Your task to perform on an android device: show emergency info Image 0: 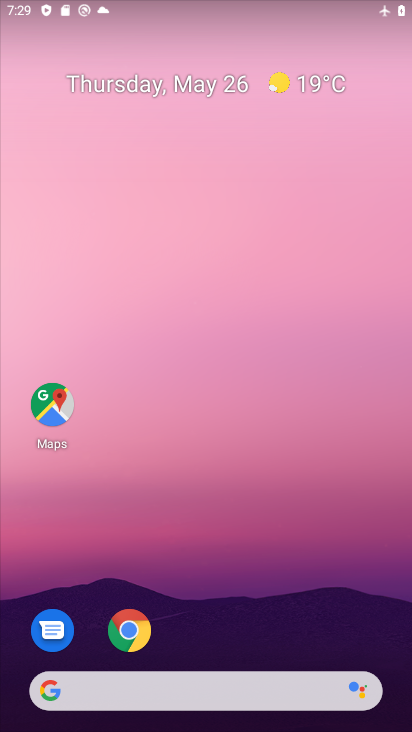
Step 0: drag from (285, 620) to (209, 162)
Your task to perform on an android device: show emergency info Image 1: 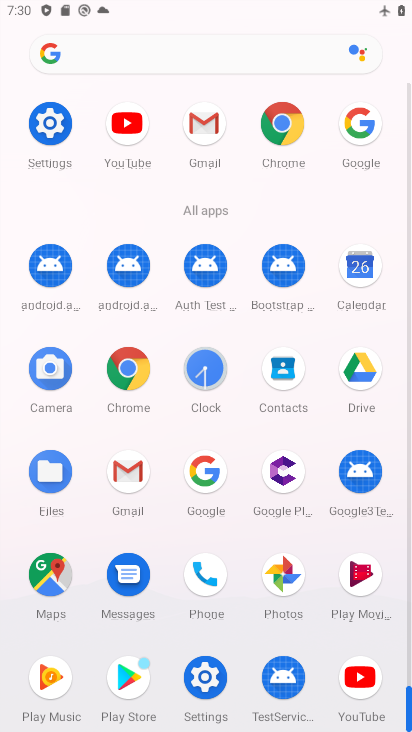
Step 1: click (203, 676)
Your task to perform on an android device: show emergency info Image 2: 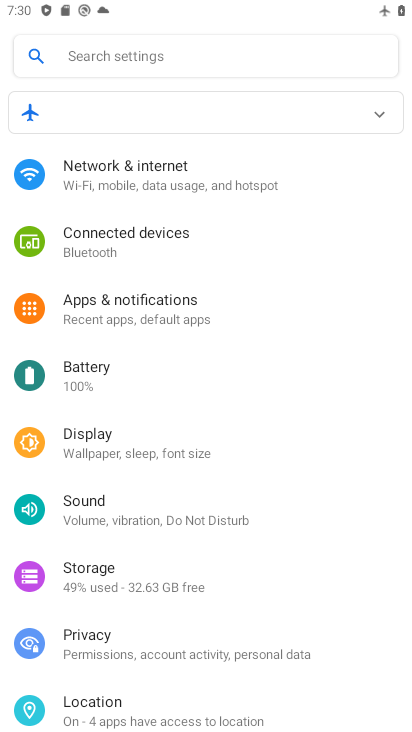
Step 2: drag from (122, 479) to (163, 384)
Your task to perform on an android device: show emergency info Image 3: 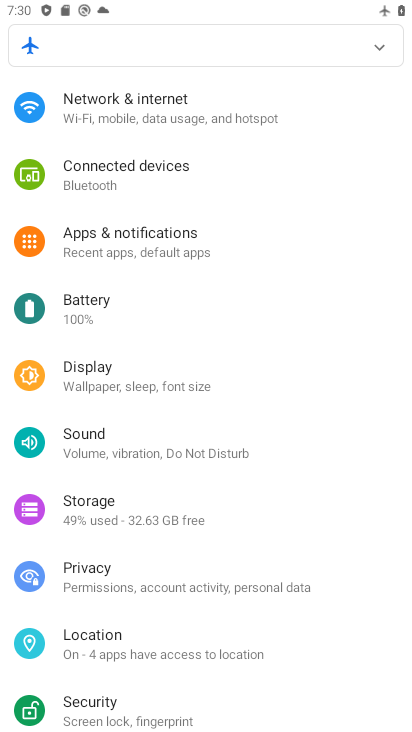
Step 3: drag from (125, 486) to (183, 399)
Your task to perform on an android device: show emergency info Image 4: 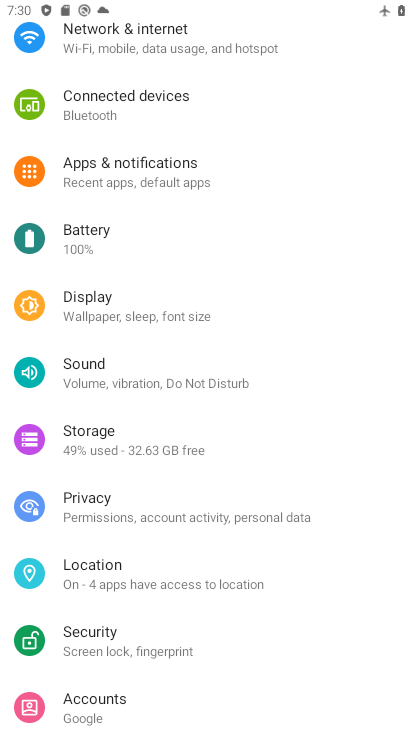
Step 4: drag from (109, 480) to (151, 389)
Your task to perform on an android device: show emergency info Image 5: 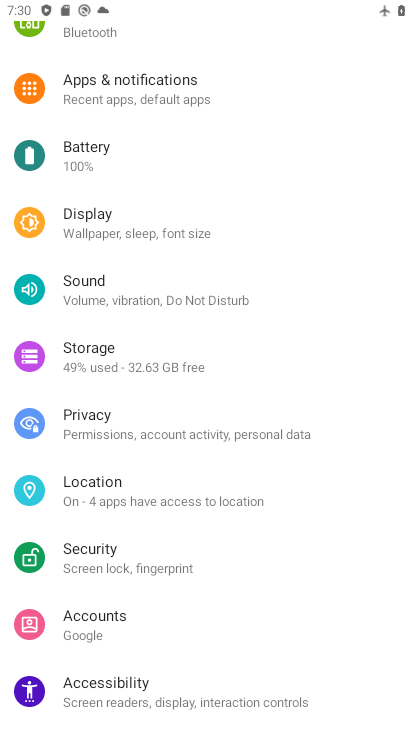
Step 5: drag from (86, 467) to (145, 388)
Your task to perform on an android device: show emergency info Image 6: 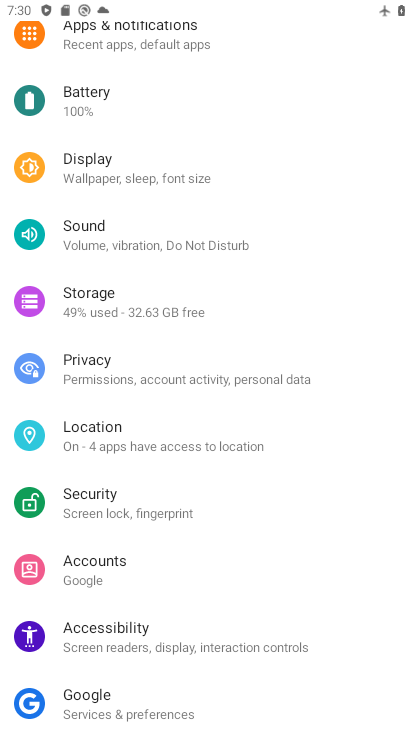
Step 6: drag from (73, 472) to (139, 378)
Your task to perform on an android device: show emergency info Image 7: 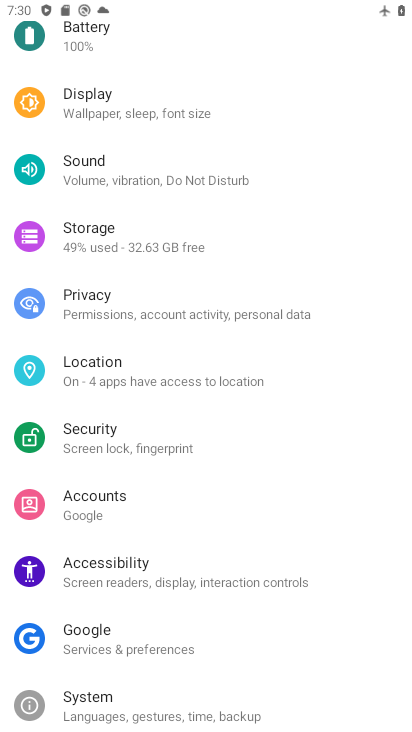
Step 7: drag from (80, 476) to (170, 363)
Your task to perform on an android device: show emergency info Image 8: 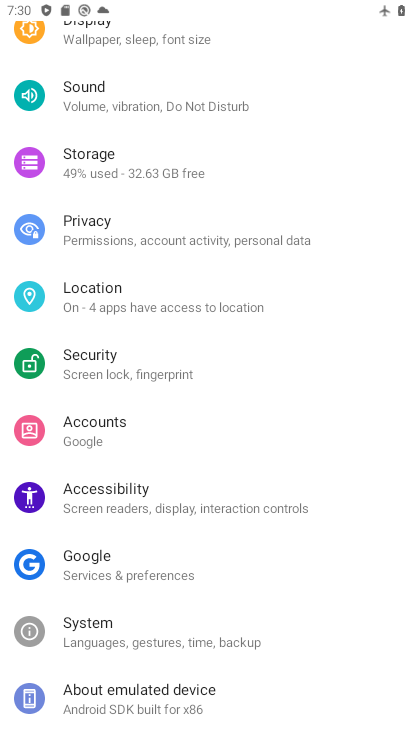
Step 8: drag from (82, 528) to (163, 422)
Your task to perform on an android device: show emergency info Image 9: 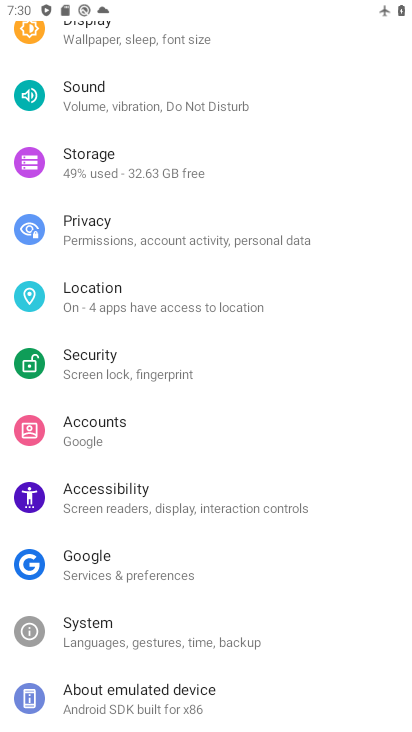
Step 9: click (133, 684)
Your task to perform on an android device: show emergency info Image 10: 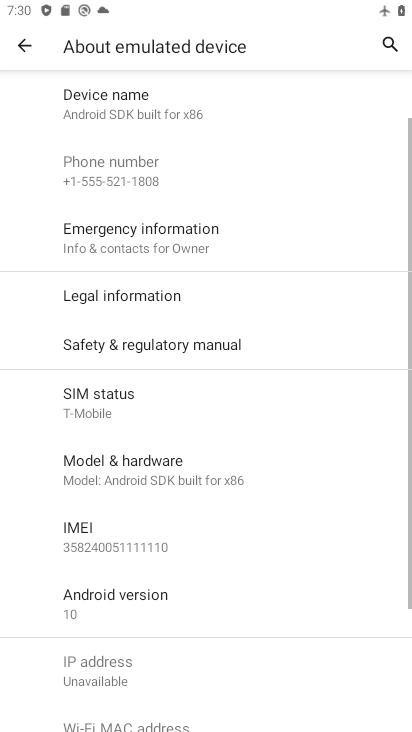
Step 10: click (167, 234)
Your task to perform on an android device: show emergency info Image 11: 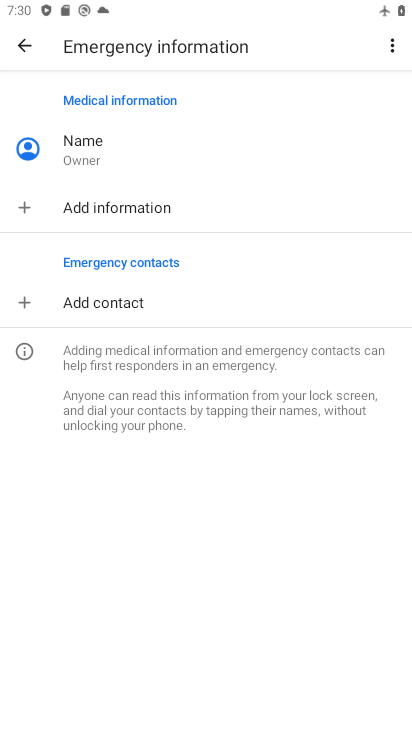
Step 11: task complete